Your task to perform on an android device: Open calendar and show me the first week of next month Image 0: 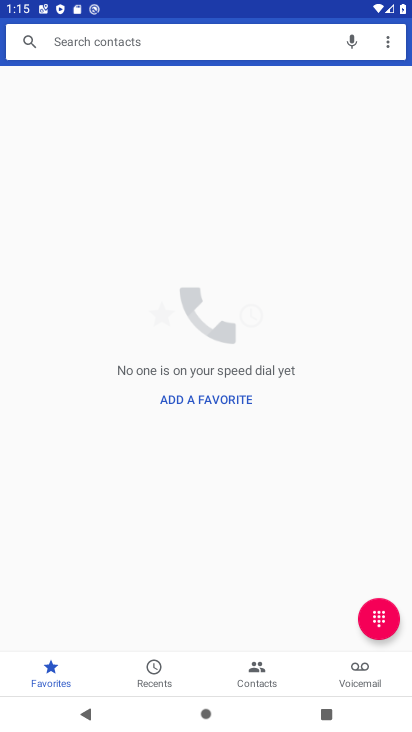
Step 0: press home button
Your task to perform on an android device: Open calendar and show me the first week of next month Image 1: 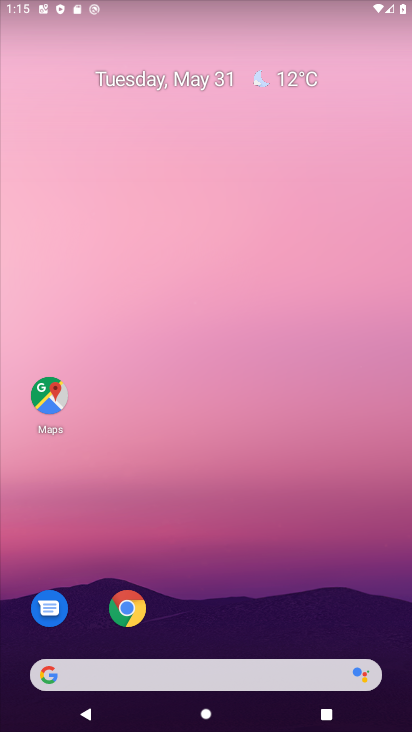
Step 1: drag from (300, 592) to (283, 120)
Your task to perform on an android device: Open calendar and show me the first week of next month Image 2: 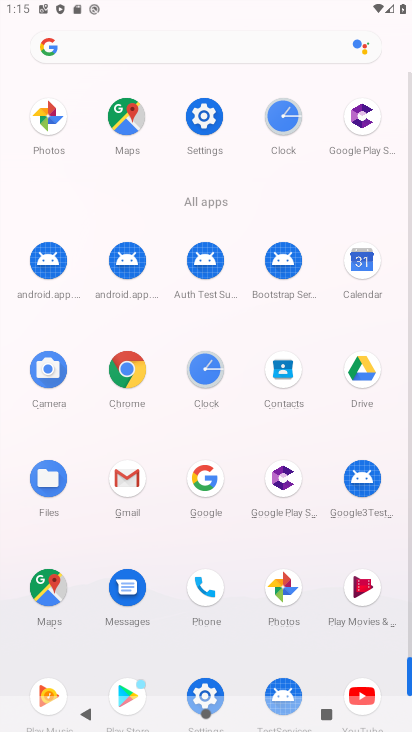
Step 2: click (355, 255)
Your task to perform on an android device: Open calendar and show me the first week of next month Image 3: 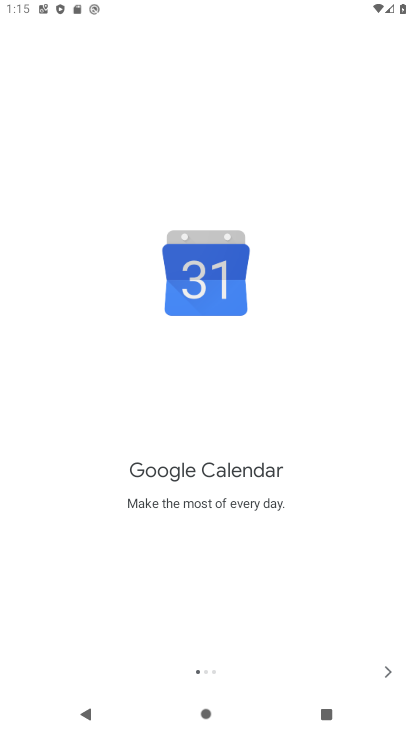
Step 3: click (380, 665)
Your task to perform on an android device: Open calendar and show me the first week of next month Image 4: 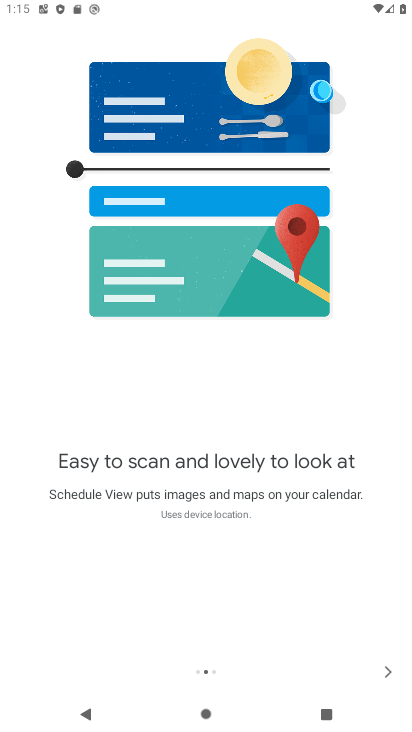
Step 4: click (380, 665)
Your task to perform on an android device: Open calendar and show me the first week of next month Image 5: 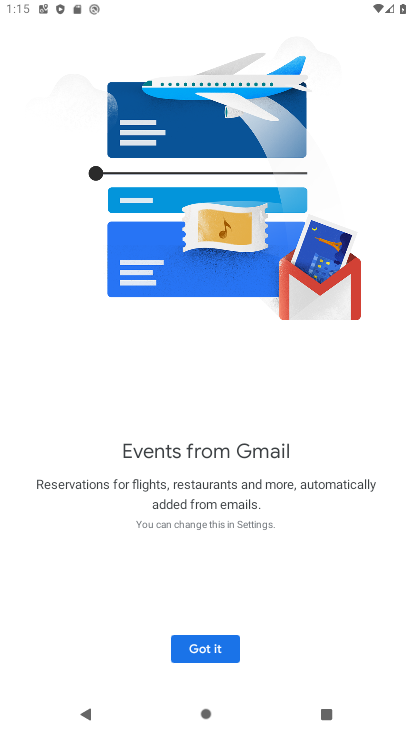
Step 5: click (207, 658)
Your task to perform on an android device: Open calendar and show me the first week of next month Image 6: 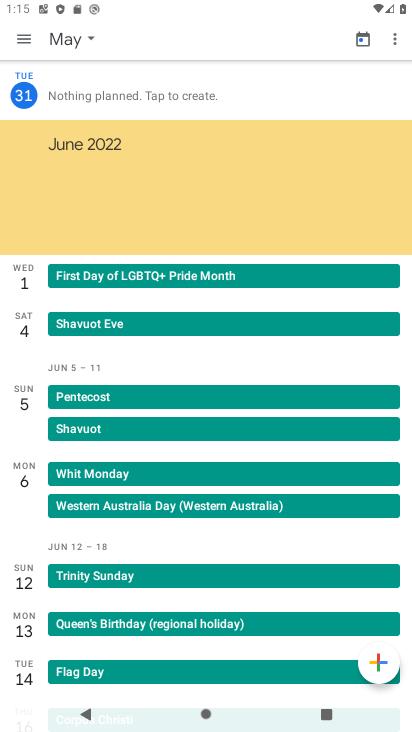
Step 6: click (72, 38)
Your task to perform on an android device: Open calendar and show me the first week of next month Image 7: 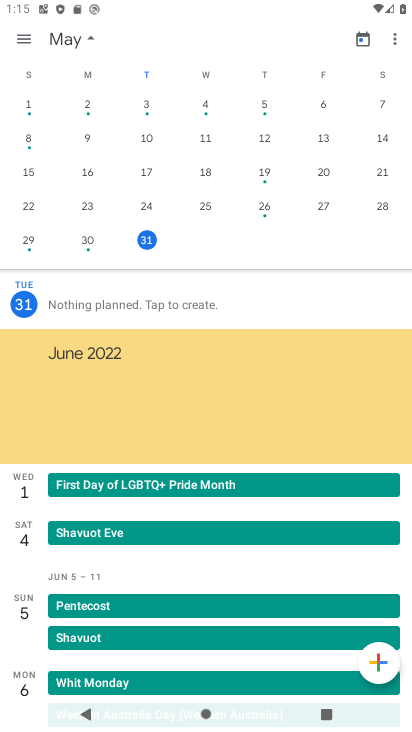
Step 7: drag from (335, 229) to (12, 217)
Your task to perform on an android device: Open calendar and show me the first week of next month Image 8: 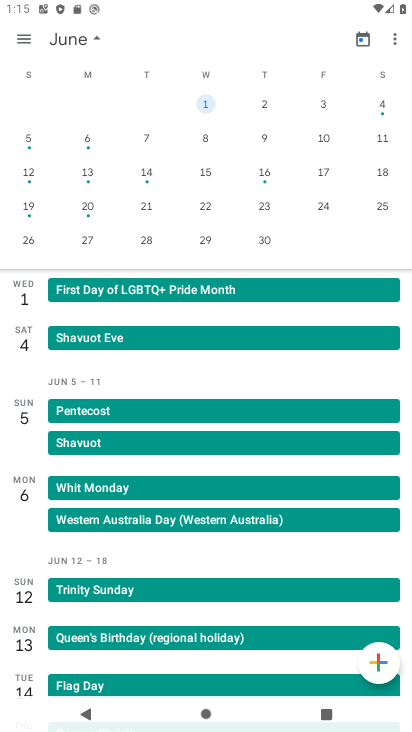
Step 8: click (203, 104)
Your task to perform on an android device: Open calendar and show me the first week of next month Image 9: 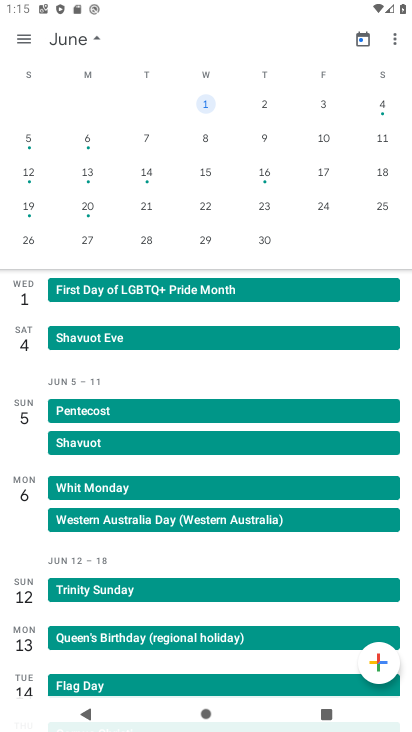
Step 9: click (267, 108)
Your task to perform on an android device: Open calendar and show me the first week of next month Image 10: 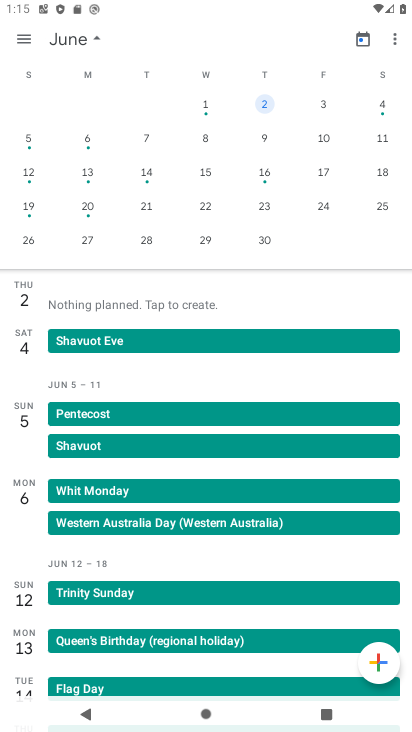
Step 10: click (325, 102)
Your task to perform on an android device: Open calendar and show me the first week of next month Image 11: 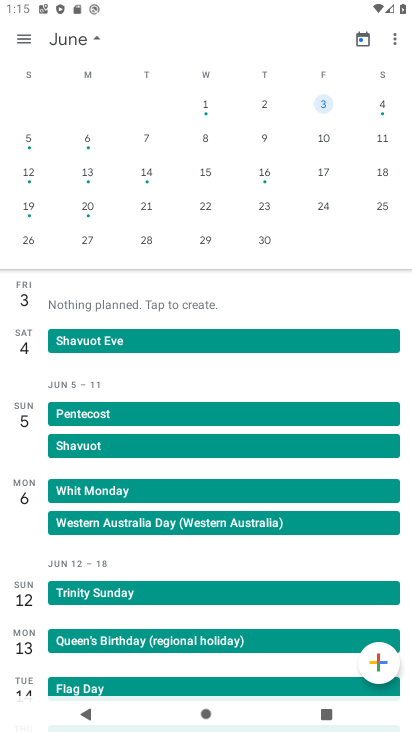
Step 11: click (390, 103)
Your task to perform on an android device: Open calendar and show me the first week of next month Image 12: 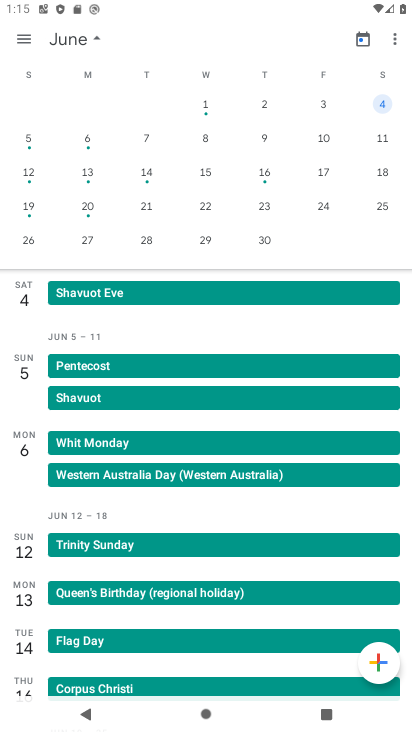
Step 12: click (33, 140)
Your task to perform on an android device: Open calendar and show me the first week of next month Image 13: 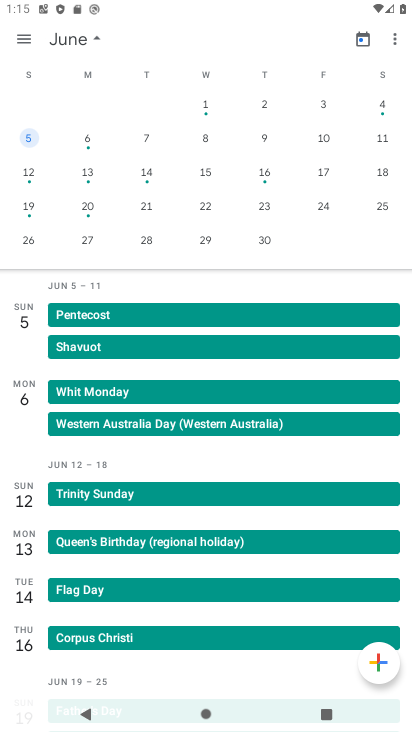
Step 13: task complete